Your task to perform on an android device: Open the stopwatch Image 0: 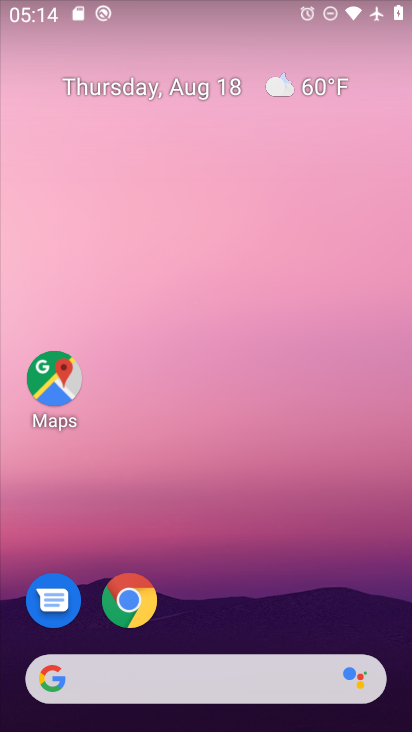
Step 0: press home button
Your task to perform on an android device: Open the stopwatch Image 1: 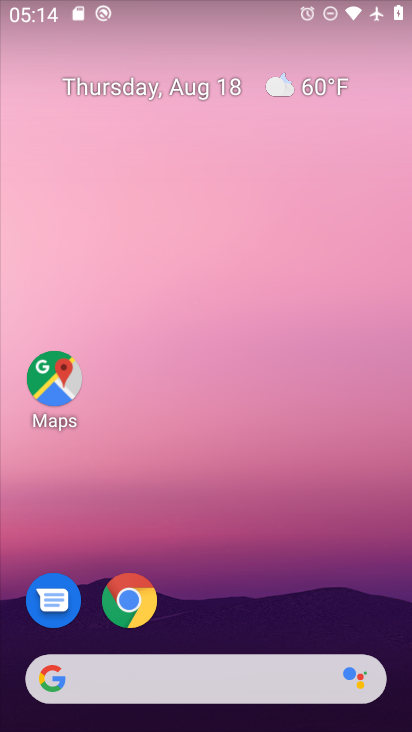
Step 1: drag from (250, 633) to (270, 58)
Your task to perform on an android device: Open the stopwatch Image 2: 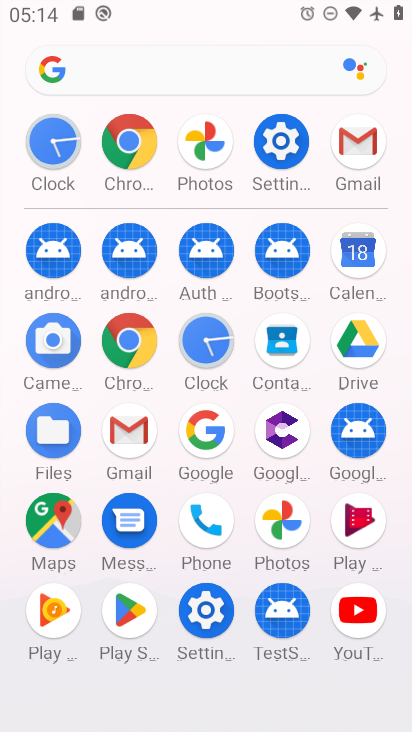
Step 2: click (205, 354)
Your task to perform on an android device: Open the stopwatch Image 3: 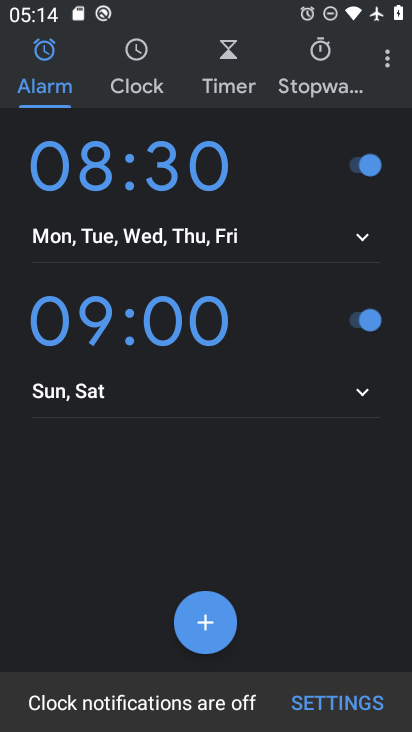
Step 3: click (318, 58)
Your task to perform on an android device: Open the stopwatch Image 4: 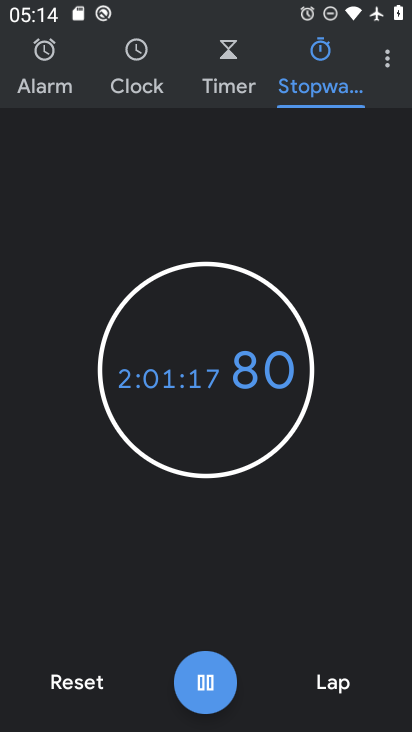
Step 4: task complete